Your task to perform on an android device: change the upload size in google photos Image 0: 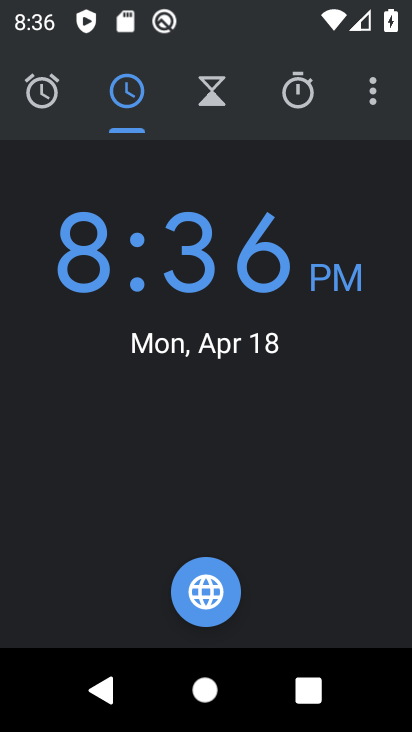
Step 0: press home button
Your task to perform on an android device: change the upload size in google photos Image 1: 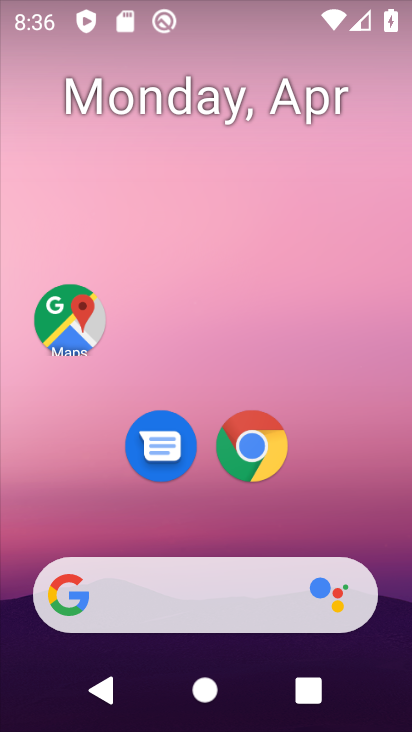
Step 1: drag from (314, 523) to (321, 76)
Your task to perform on an android device: change the upload size in google photos Image 2: 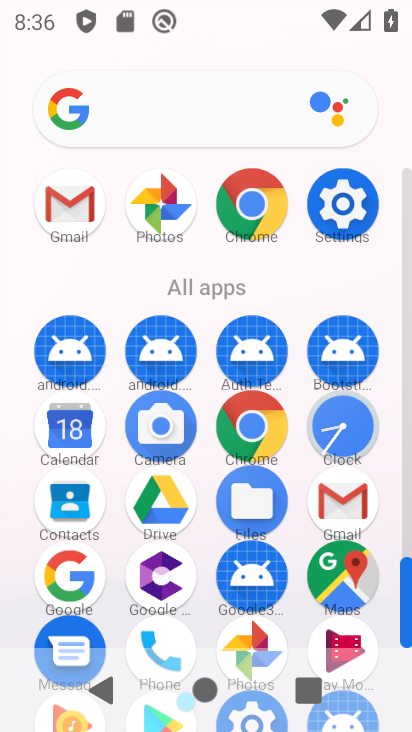
Step 2: drag from (204, 537) to (202, 247)
Your task to perform on an android device: change the upload size in google photos Image 3: 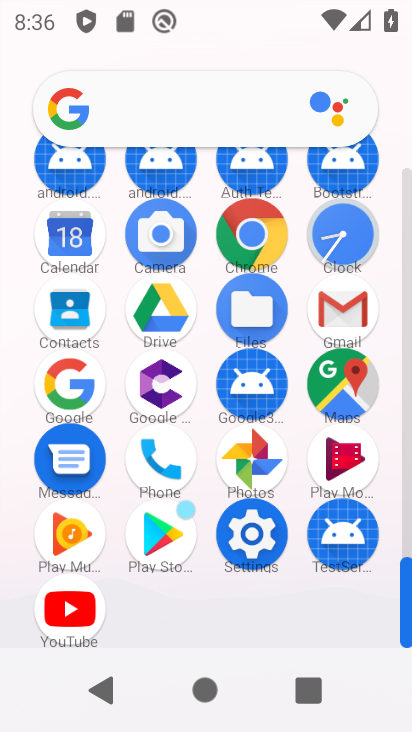
Step 3: click (253, 467)
Your task to perform on an android device: change the upload size in google photos Image 4: 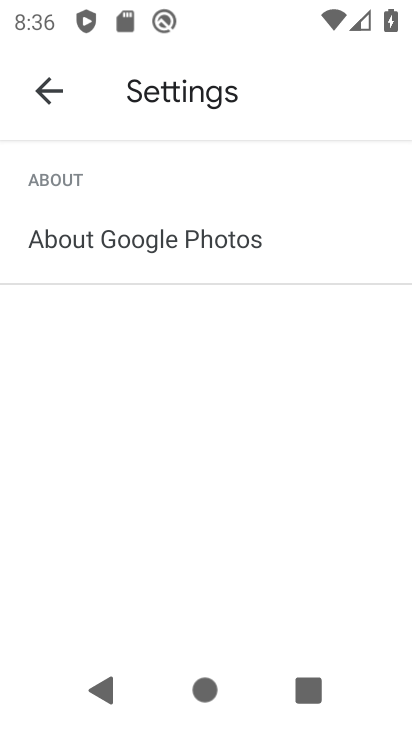
Step 4: click (46, 76)
Your task to perform on an android device: change the upload size in google photos Image 5: 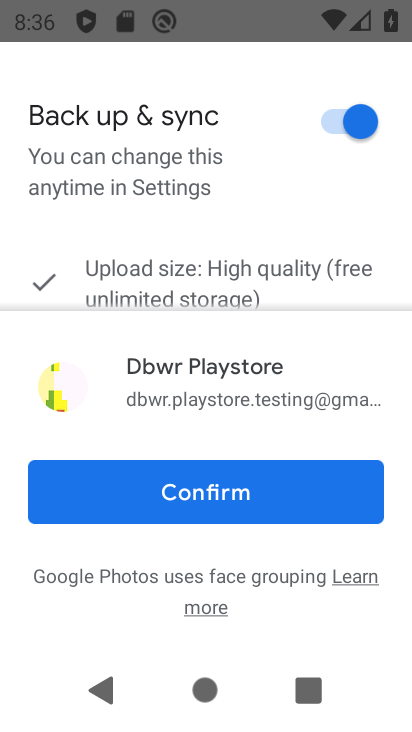
Step 5: click (302, 480)
Your task to perform on an android device: change the upload size in google photos Image 6: 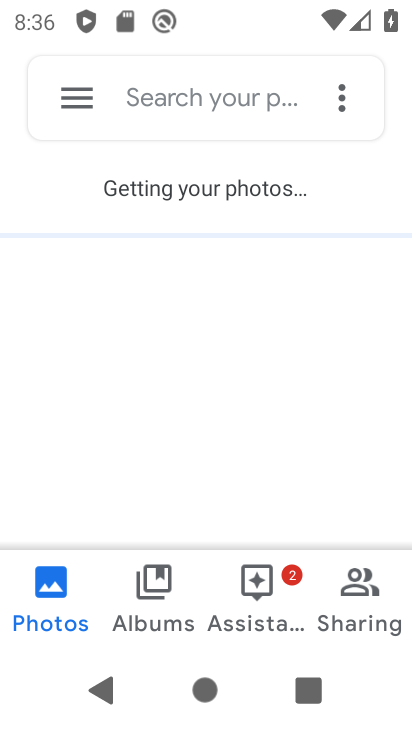
Step 6: click (67, 97)
Your task to perform on an android device: change the upload size in google photos Image 7: 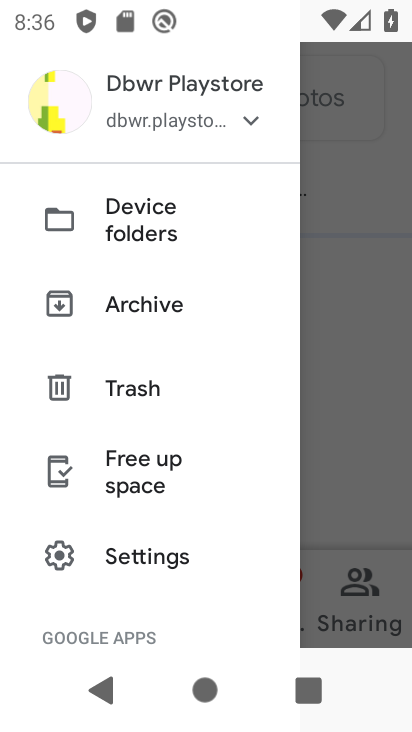
Step 7: click (168, 556)
Your task to perform on an android device: change the upload size in google photos Image 8: 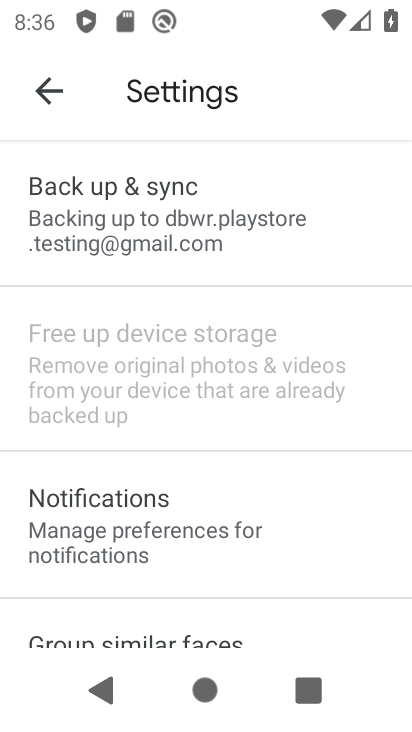
Step 8: click (213, 229)
Your task to perform on an android device: change the upload size in google photos Image 9: 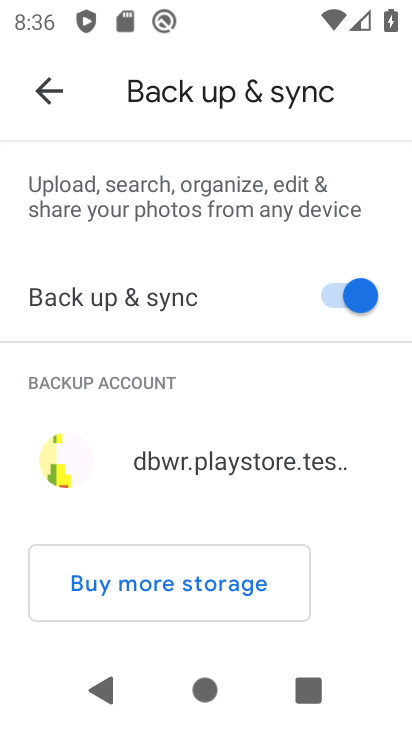
Step 9: drag from (363, 551) to (394, 181)
Your task to perform on an android device: change the upload size in google photos Image 10: 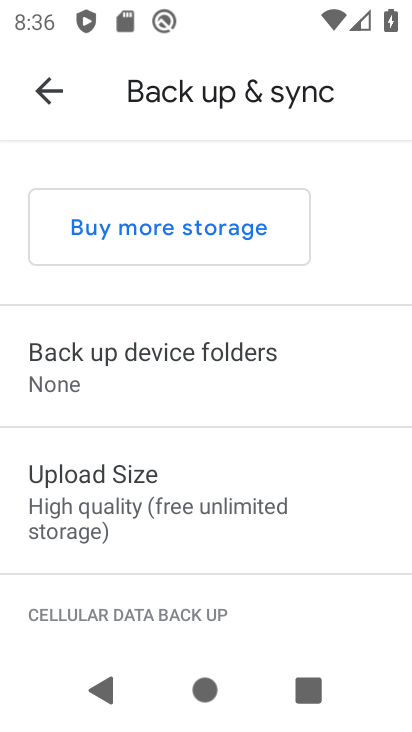
Step 10: click (216, 513)
Your task to perform on an android device: change the upload size in google photos Image 11: 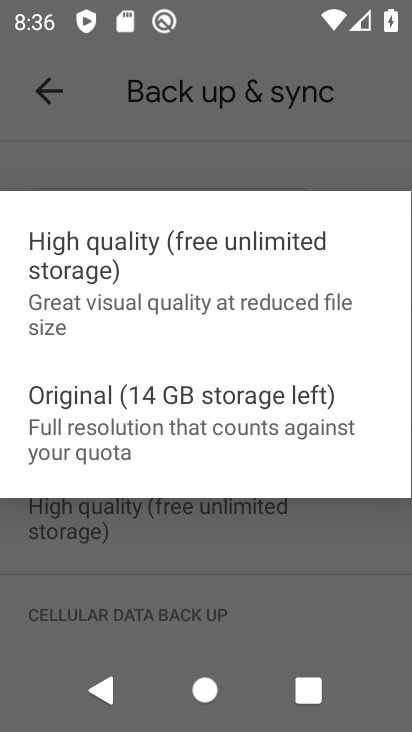
Step 11: click (217, 419)
Your task to perform on an android device: change the upload size in google photos Image 12: 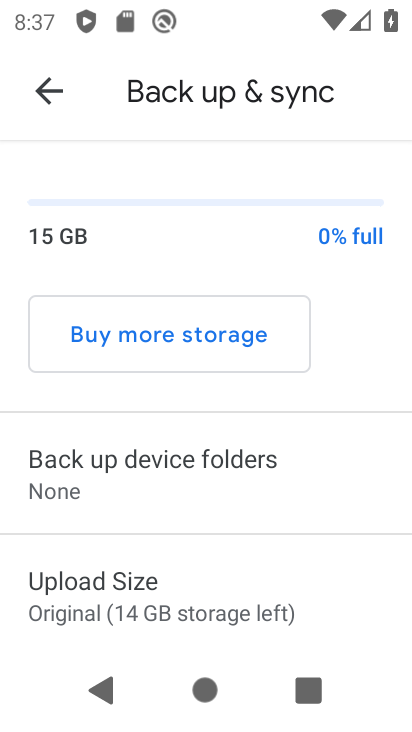
Step 12: task complete